Your task to perform on an android device: Open Youtube and go to "Your channel" Image 0: 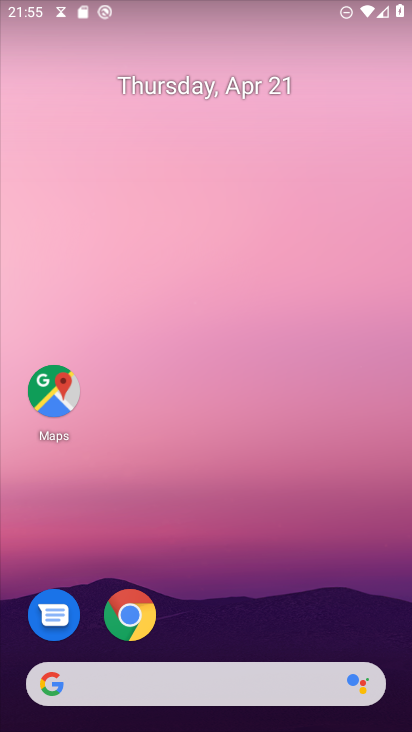
Step 0: drag from (205, 623) to (252, 121)
Your task to perform on an android device: Open Youtube and go to "Your channel" Image 1: 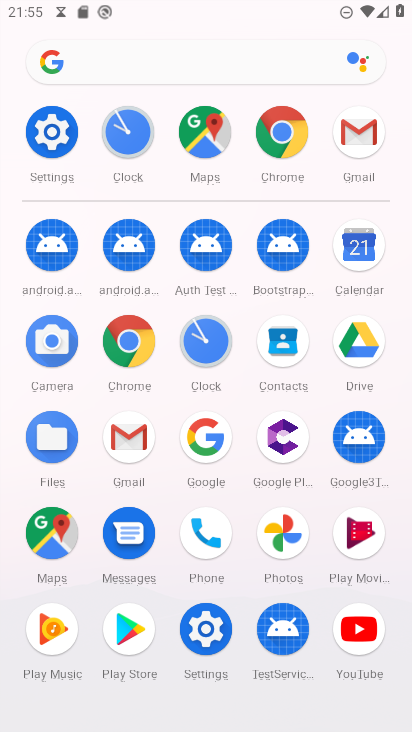
Step 1: click (352, 642)
Your task to perform on an android device: Open Youtube and go to "Your channel" Image 2: 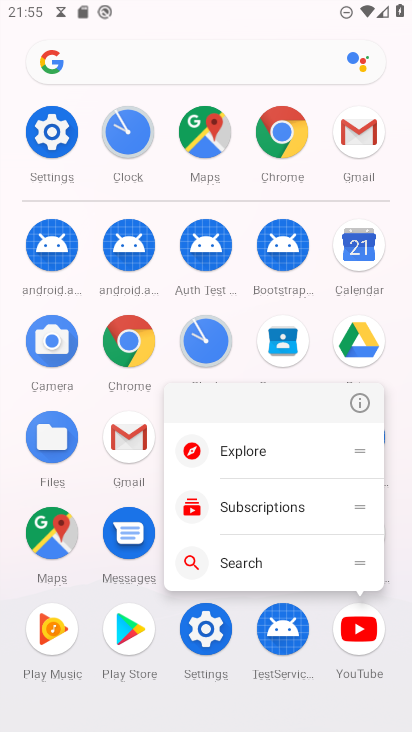
Step 2: click (370, 396)
Your task to perform on an android device: Open Youtube and go to "Your channel" Image 3: 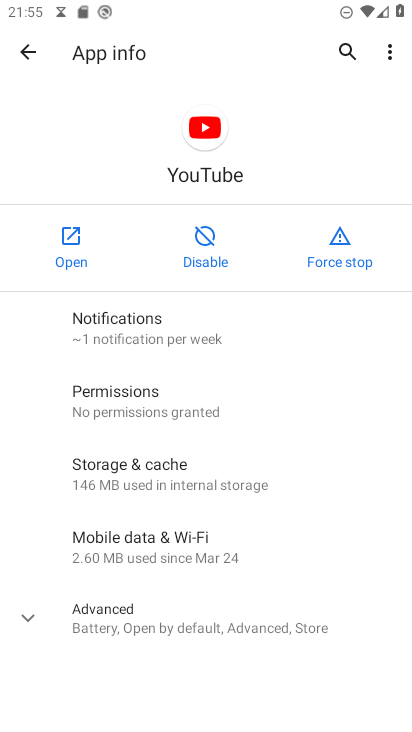
Step 3: click (62, 250)
Your task to perform on an android device: Open Youtube and go to "Your channel" Image 4: 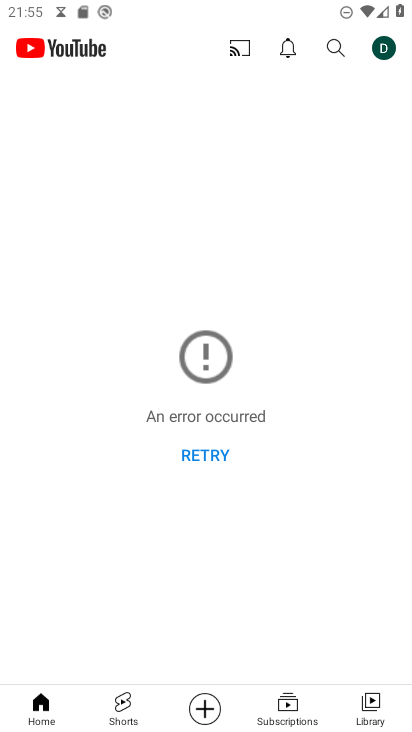
Step 4: click (371, 705)
Your task to perform on an android device: Open Youtube and go to "Your channel" Image 5: 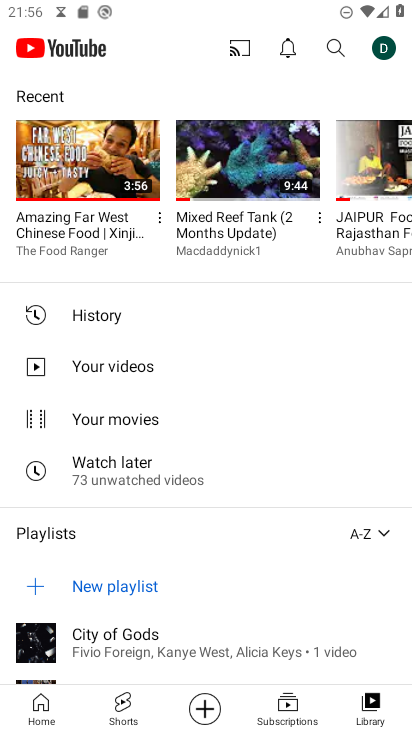
Step 5: click (380, 47)
Your task to perform on an android device: Open Youtube and go to "Your channel" Image 6: 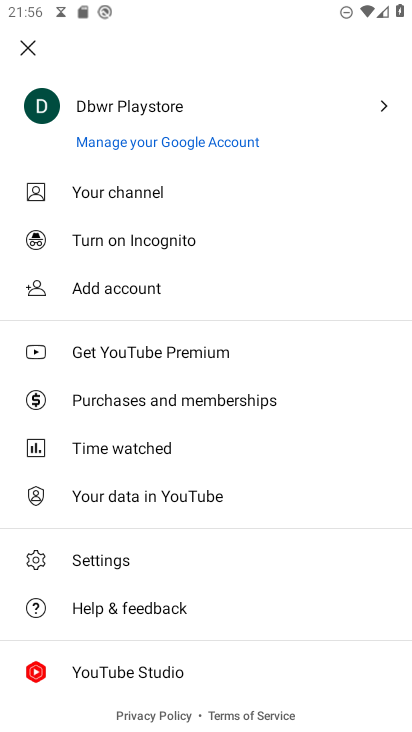
Step 6: click (157, 194)
Your task to perform on an android device: Open Youtube and go to "Your channel" Image 7: 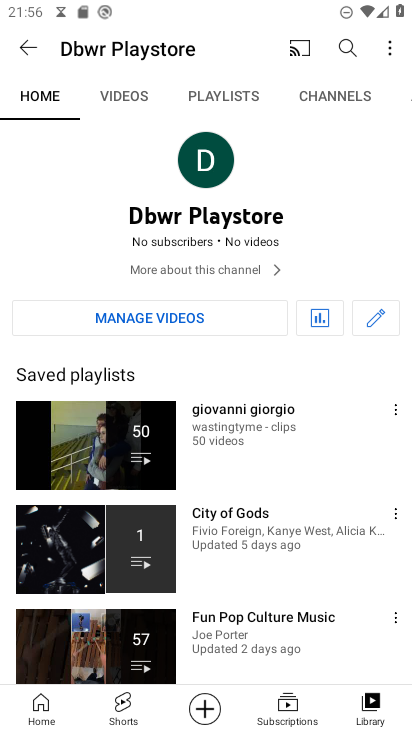
Step 7: task complete